Your task to perform on an android device: Open Google Image 0: 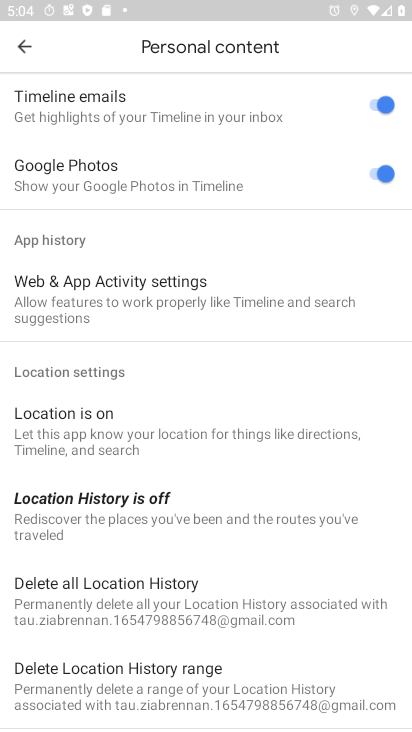
Step 0: press home button
Your task to perform on an android device: Open Google Image 1: 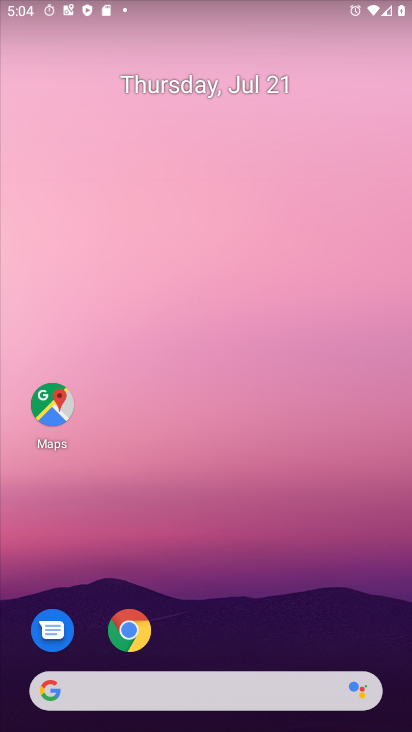
Step 1: drag from (198, 694) to (262, 304)
Your task to perform on an android device: Open Google Image 2: 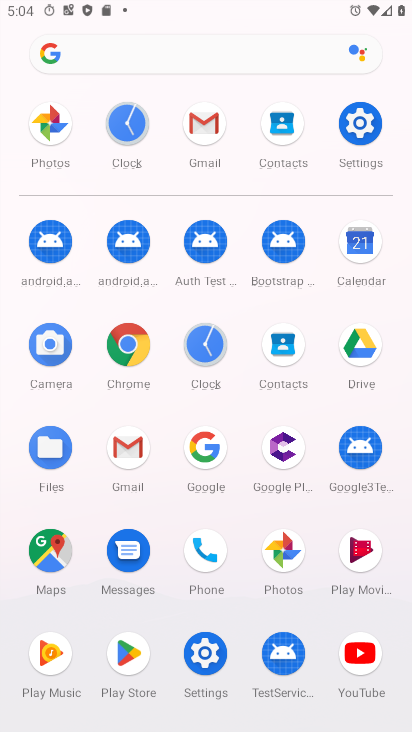
Step 2: click (204, 445)
Your task to perform on an android device: Open Google Image 3: 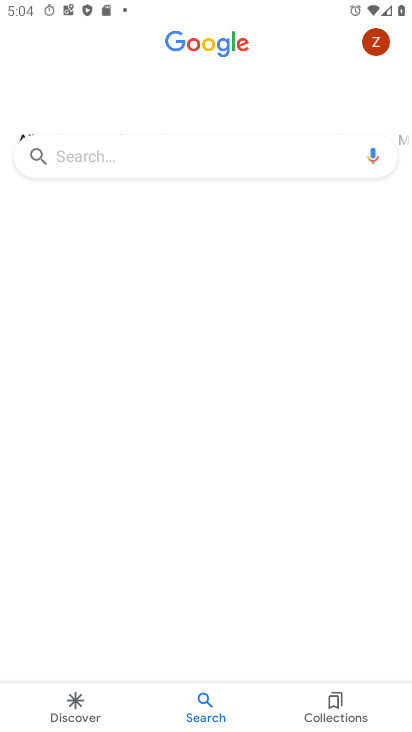
Step 3: task complete